Your task to perform on an android device: Show the shopping cart on ebay. Search for "logitech g pro" on ebay, select the first entry, add it to the cart, then select checkout. Image 0: 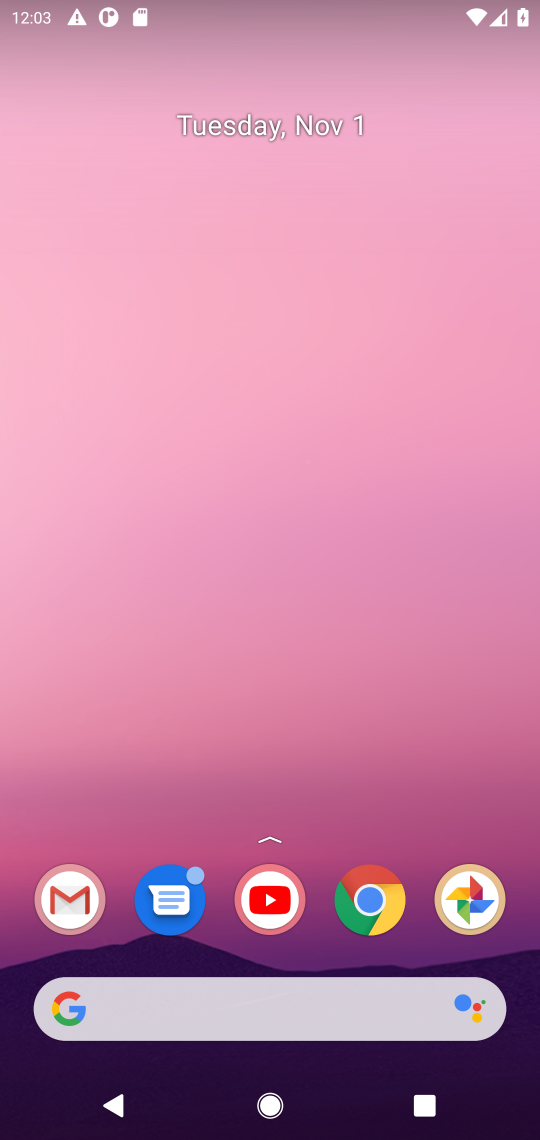
Step 0: click (363, 893)
Your task to perform on an android device: Show the shopping cart on ebay. Search for "logitech g pro" on ebay, select the first entry, add it to the cart, then select checkout. Image 1: 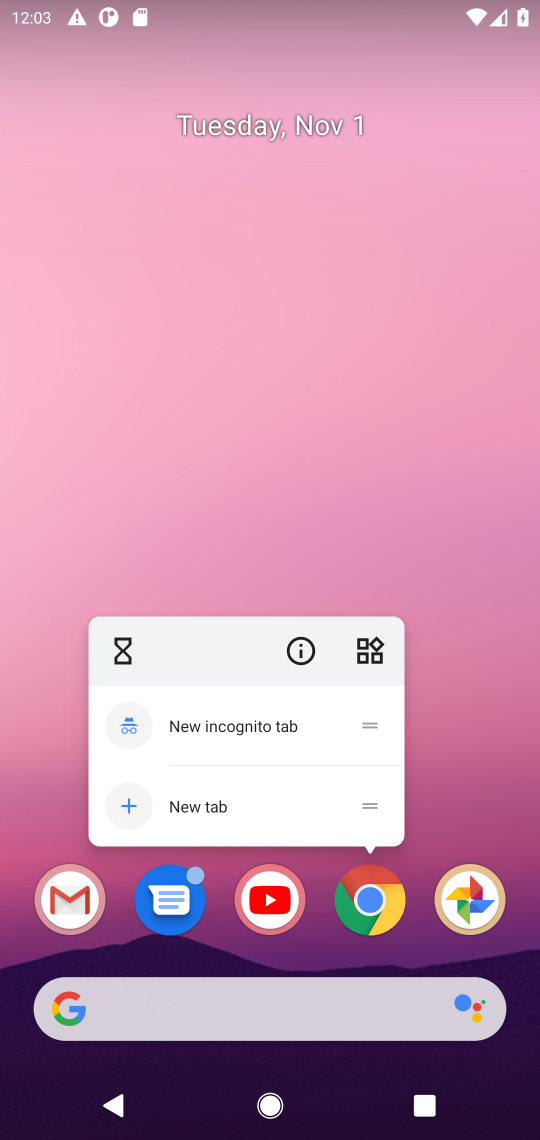
Step 1: click (363, 893)
Your task to perform on an android device: Show the shopping cart on ebay. Search for "logitech g pro" on ebay, select the first entry, add it to the cart, then select checkout. Image 2: 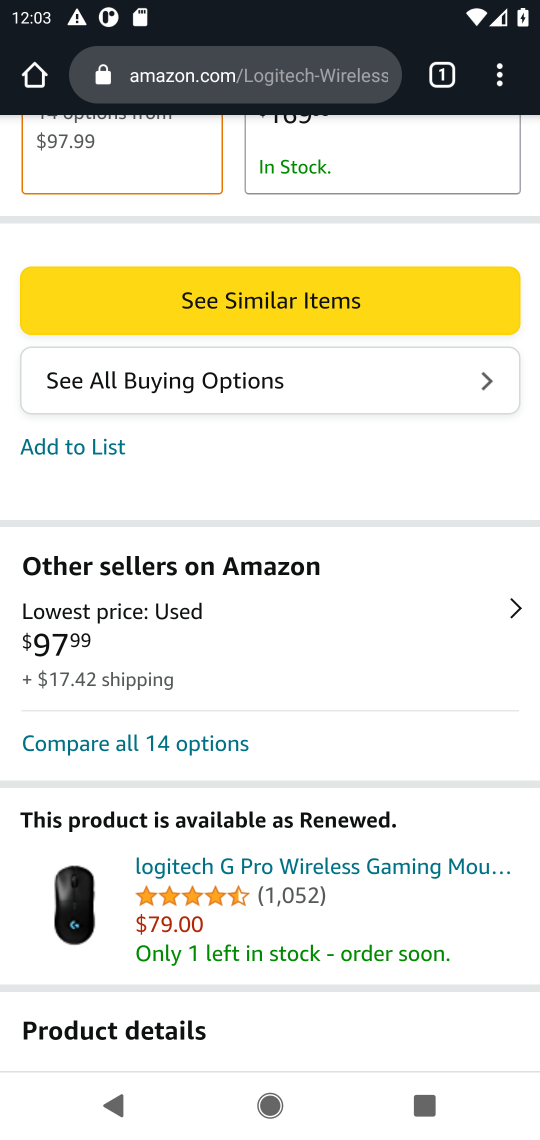
Step 2: click (179, 68)
Your task to perform on an android device: Show the shopping cart on ebay. Search for "logitech g pro" on ebay, select the first entry, add it to the cart, then select checkout. Image 3: 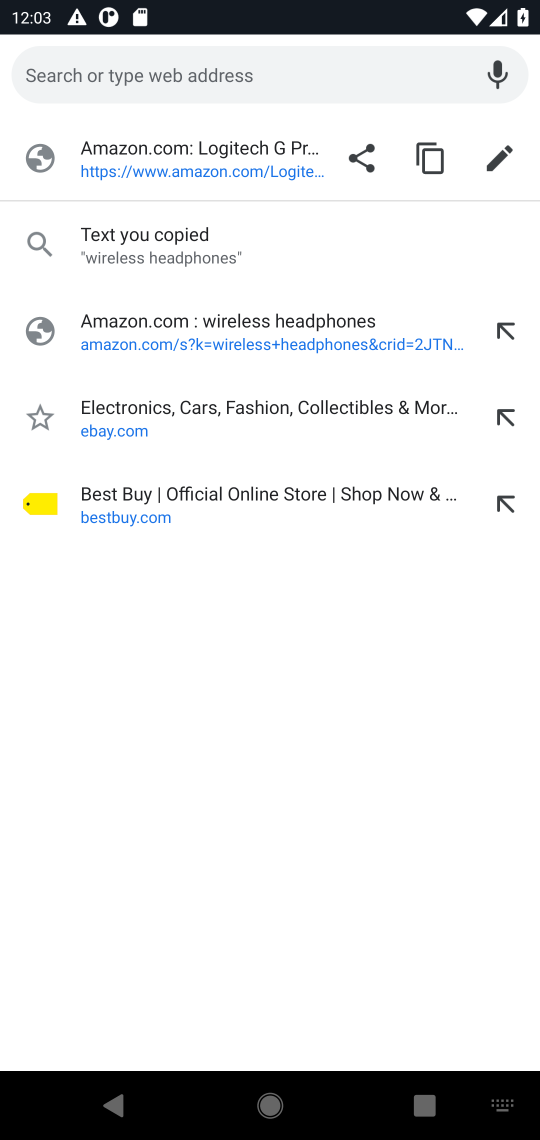
Step 3: click (193, 418)
Your task to perform on an android device: Show the shopping cart on ebay. Search for "logitech g pro" on ebay, select the first entry, add it to the cart, then select checkout. Image 4: 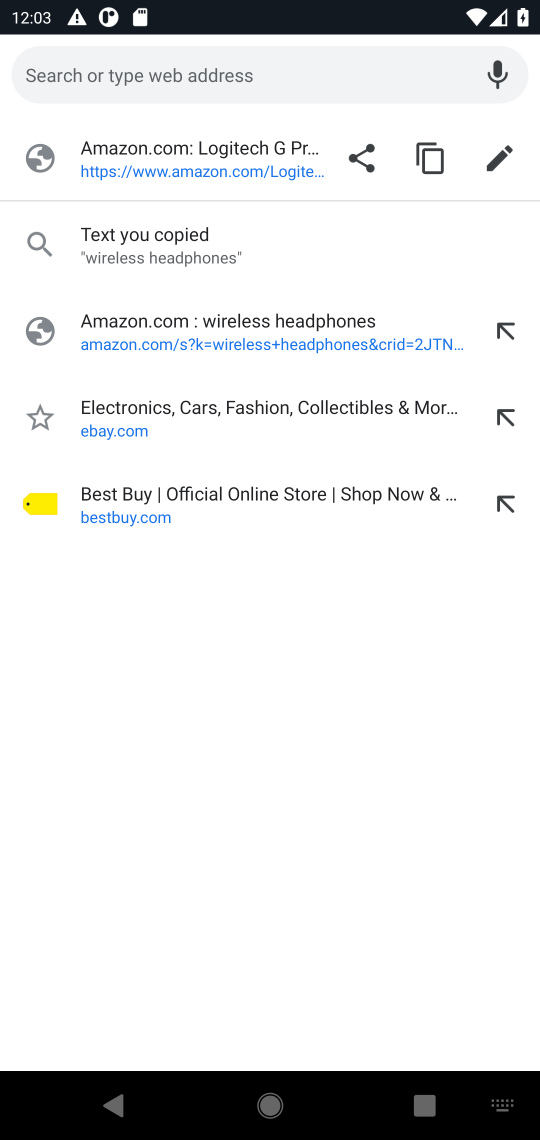
Step 4: click (193, 418)
Your task to perform on an android device: Show the shopping cart on ebay. Search for "logitech g pro" on ebay, select the first entry, add it to the cart, then select checkout. Image 5: 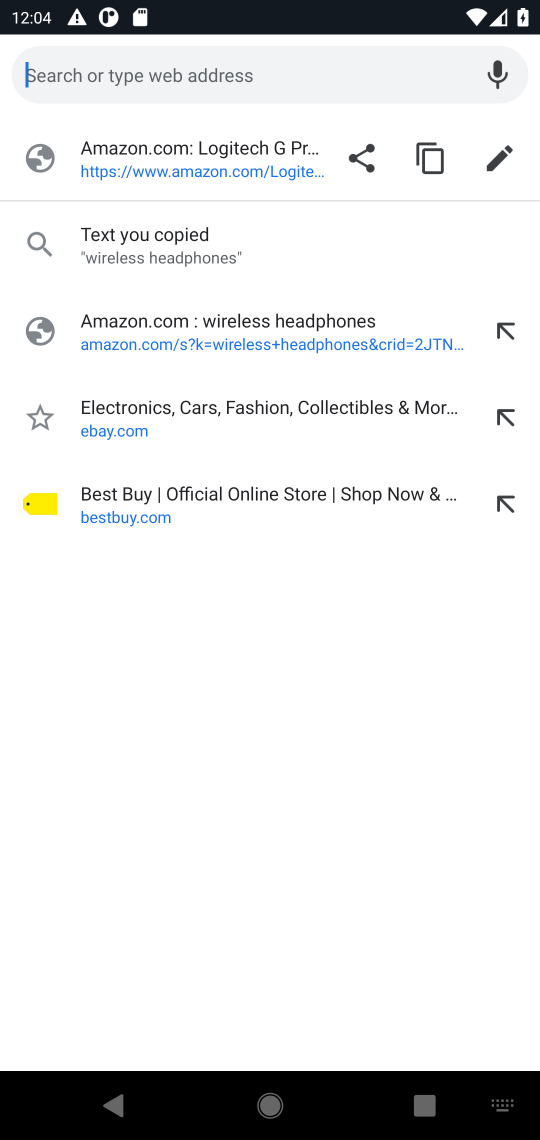
Step 5: type "ebay.com"
Your task to perform on an android device: Show the shopping cart on ebay. Search for "logitech g pro" on ebay, select the first entry, add it to the cart, then select checkout. Image 6: 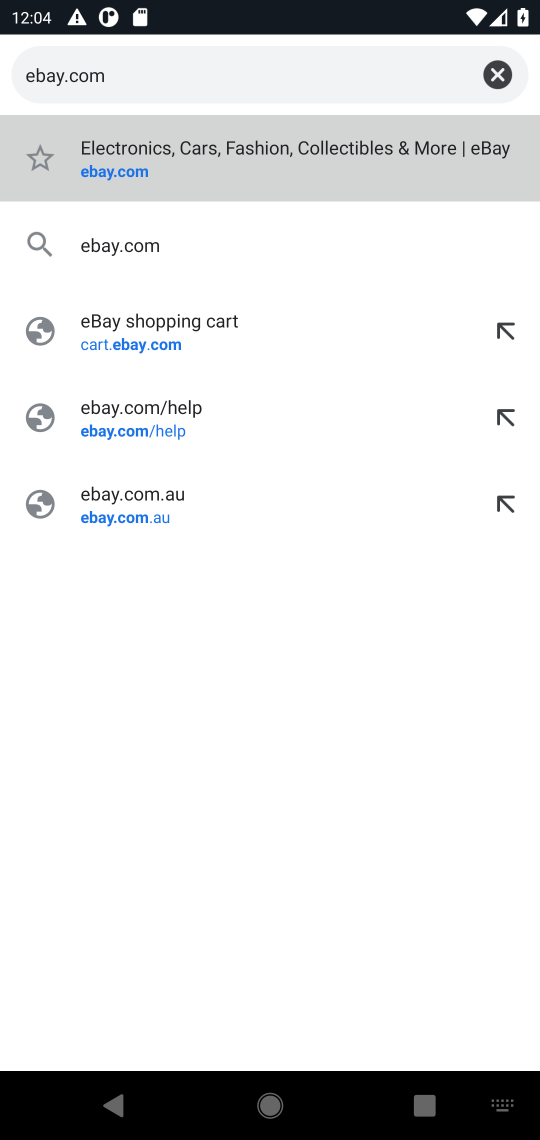
Step 6: press enter
Your task to perform on an android device: Show the shopping cart on ebay. Search for "logitech g pro" on ebay, select the first entry, add it to the cart, then select checkout. Image 7: 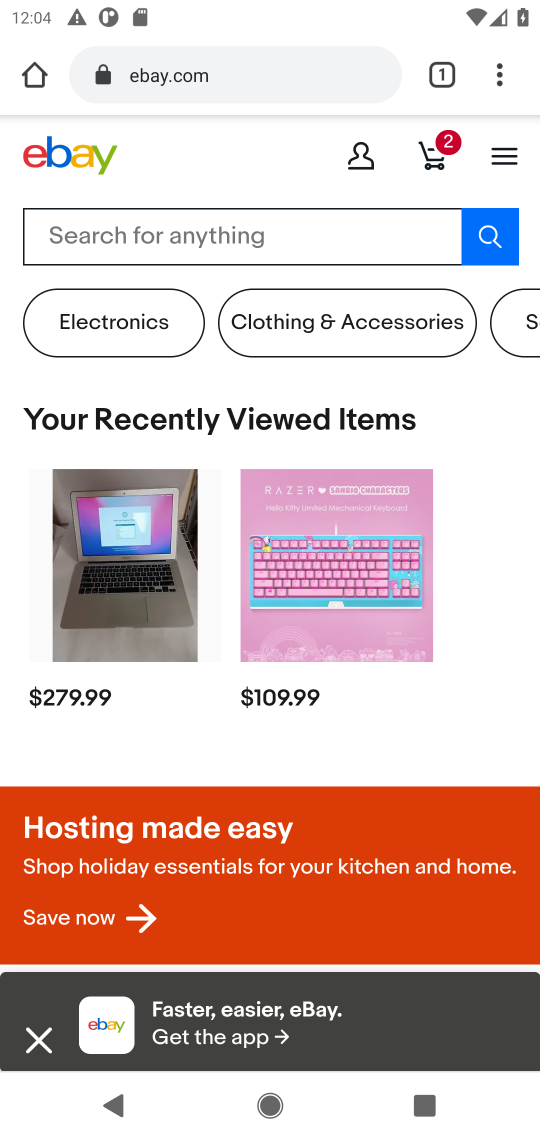
Step 7: click (434, 161)
Your task to perform on an android device: Show the shopping cart on ebay. Search for "logitech g pro" on ebay, select the first entry, add it to the cart, then select checkout. Image 8: 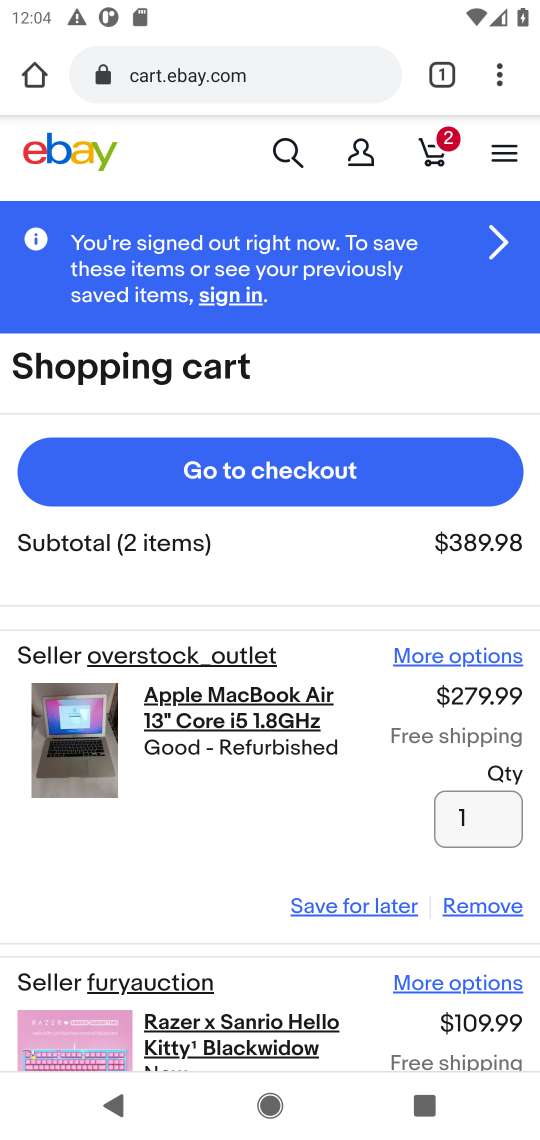
Step 8: drag from (314, 842) to (352, 570)
Your task to perform on an android device: Show the shopping cart on ebay. Search for "logitech g pro" on ebay, select the first entry, add it to the cart, then select checkout. Image 9: 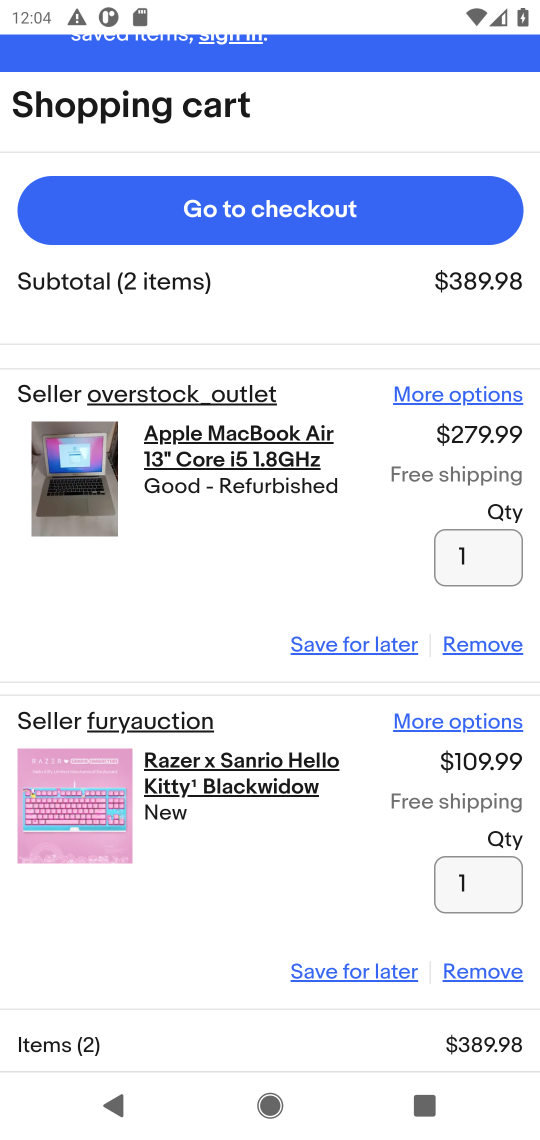
Step 9: drag from (316, 113) to (336, 415)
Your task to perform on an android device: Show the shopping cart on ebay. Search for "logitech g pro" on ebay, select the first entry, add it to the cart, then select checkout. Image 10: 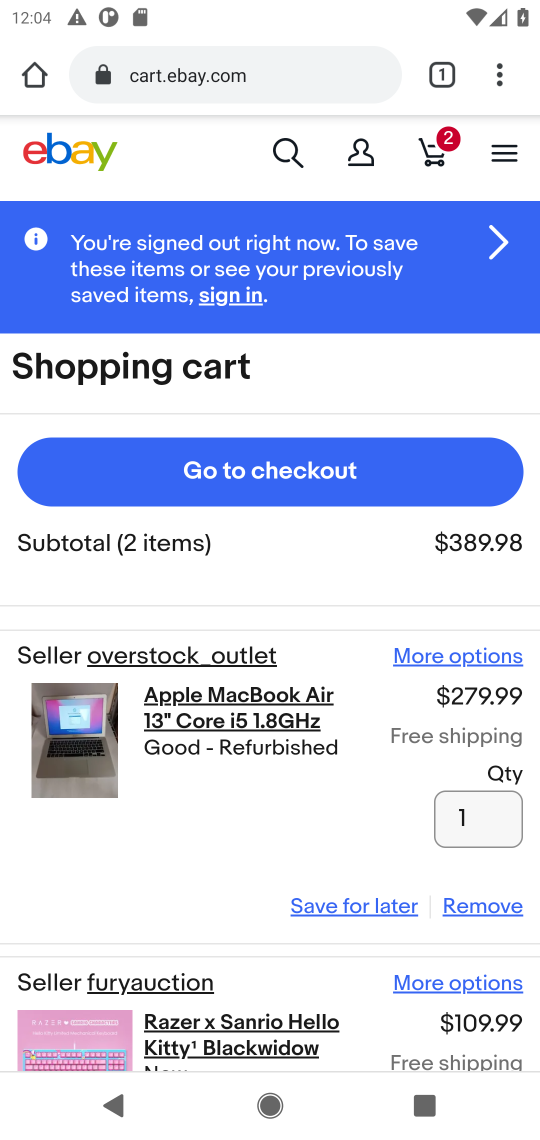
Step 10: click (278, 147)
Your task to perform on an android device: Show the shopping cart on ebay. Search for "logitech g pro" on ebay, select the first entry, add it to the cart, then select checkout. Image 11: 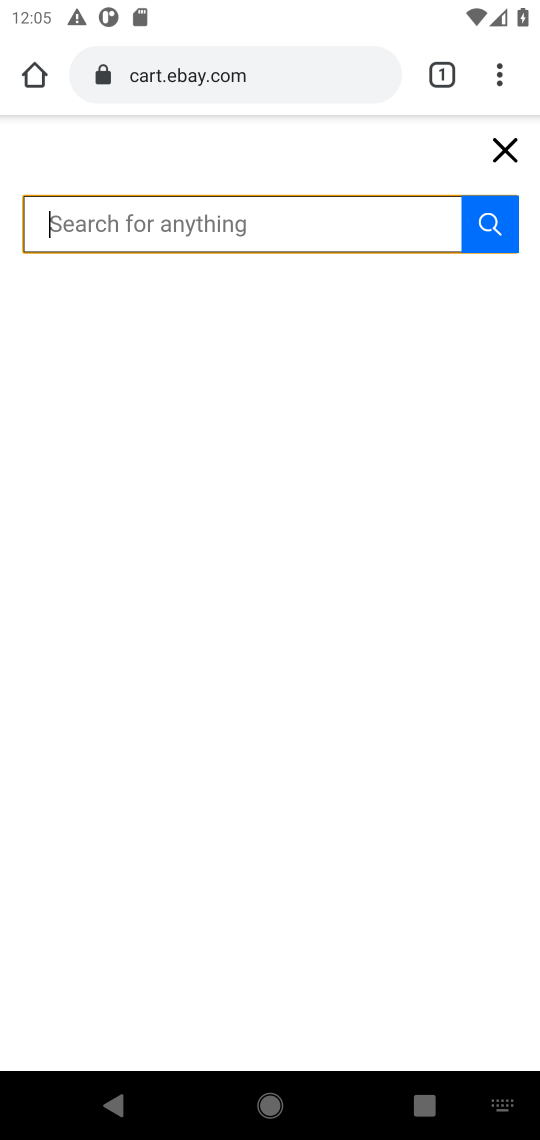
Step 11: type "logitech g pro"
Your task to perform on an android device: Show the shopping cart on ebay. Search for "logitech g pro" on ebay, select the first entry, add it to the cart, then select checkout. Image 12: 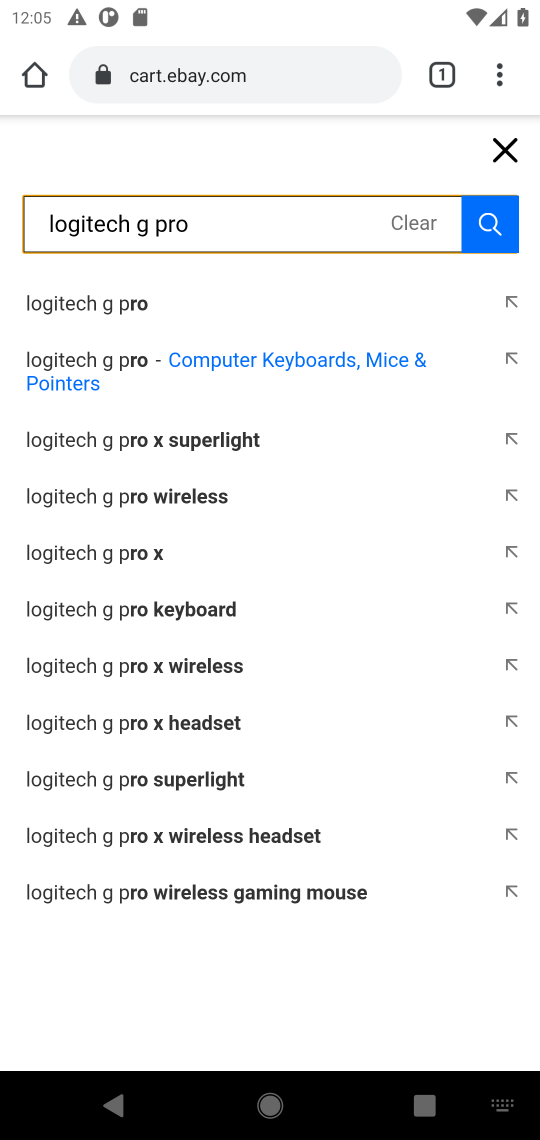
Step 12: click (505, 225)
Your task to perform on an android device: Show the shopping cart on ebay. Search for "logitech g pro" on ebay, select the first entry, add it to the cart, then select checkout. Image 13: 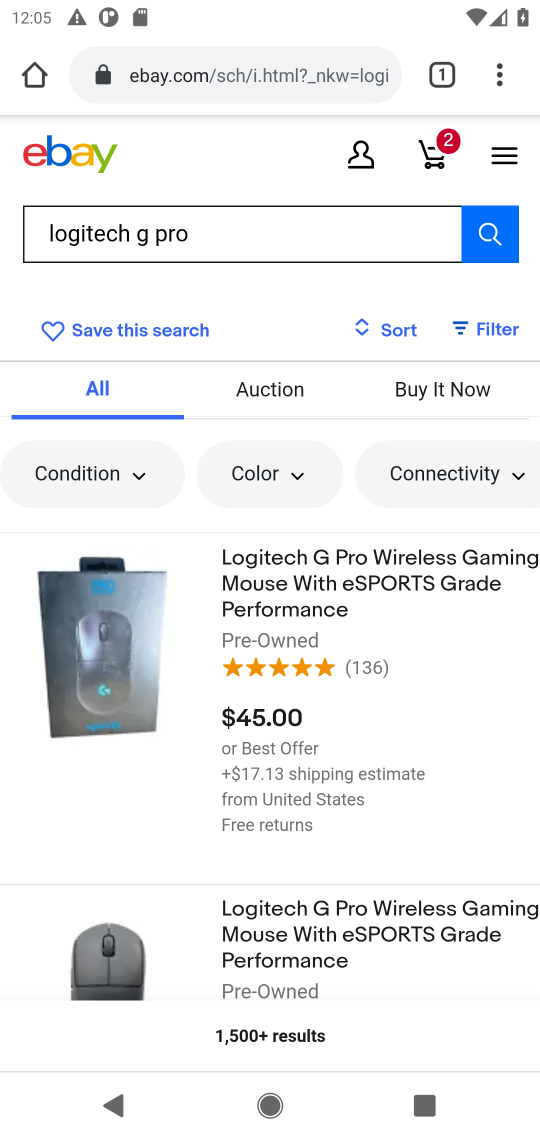
Step 13: drag from (389, 796) to (376, 660)
Your task to perform on an android device: Show the shopping cart on ebay. Search for "logitech g pro" on ebay, select the first entry, add it to the cart, then select checkout. Image 14: 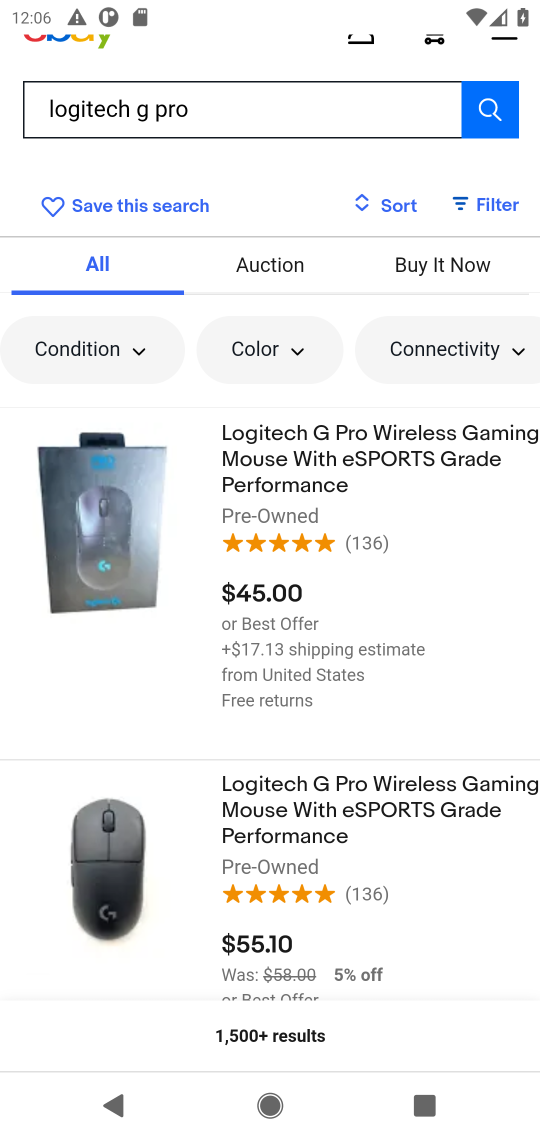
Step 14: click (272, 471)
Your task to perform on an android device: Show the shopping cart on ebay. Search for "logitech g pro" on ebay, select the first entry, add it to the cart, then select checkout. Image 15: 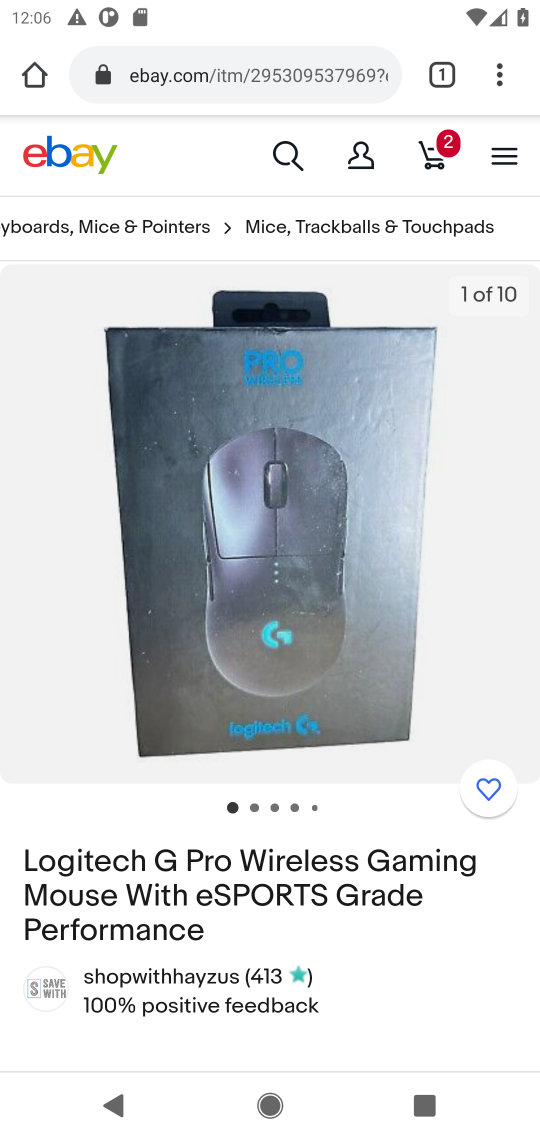
Step 15: drag from (336, 985) to (416, 416)
Your task to perform on an android device: Show the shopping cart on ebay. Search for "logitech g pro" on ebay, select the first entry, add it to the cart, then select checkout. Image 16: 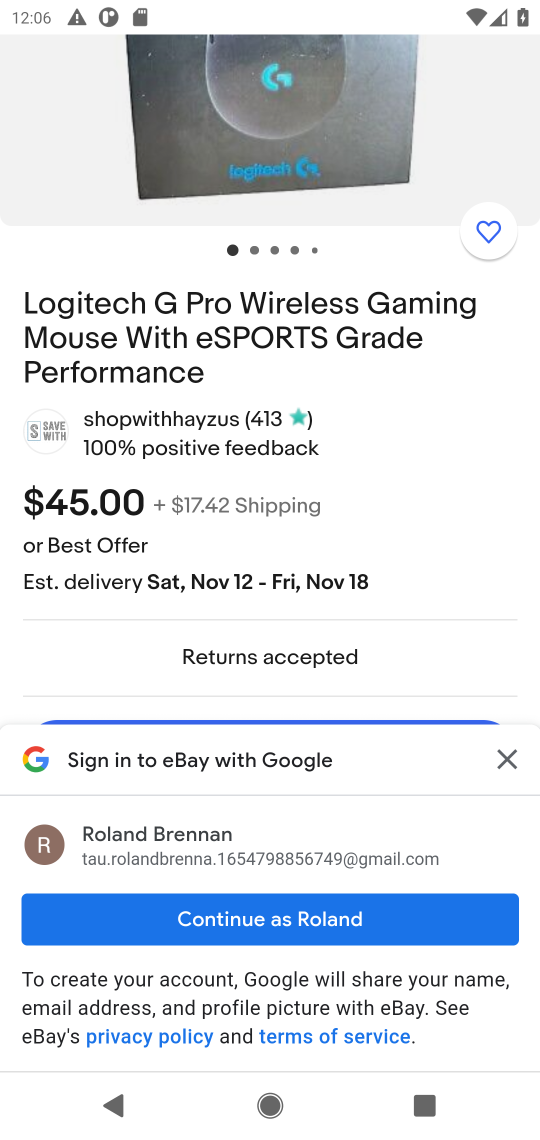
Step 16: drag from (385, 614) to (420, 336)
Your task to perform on an android device: Show the shopping cart on ebay. Search for "logitech g pro" on ebay, select the first entry, add it to the cart, then select checkout. Image 17: 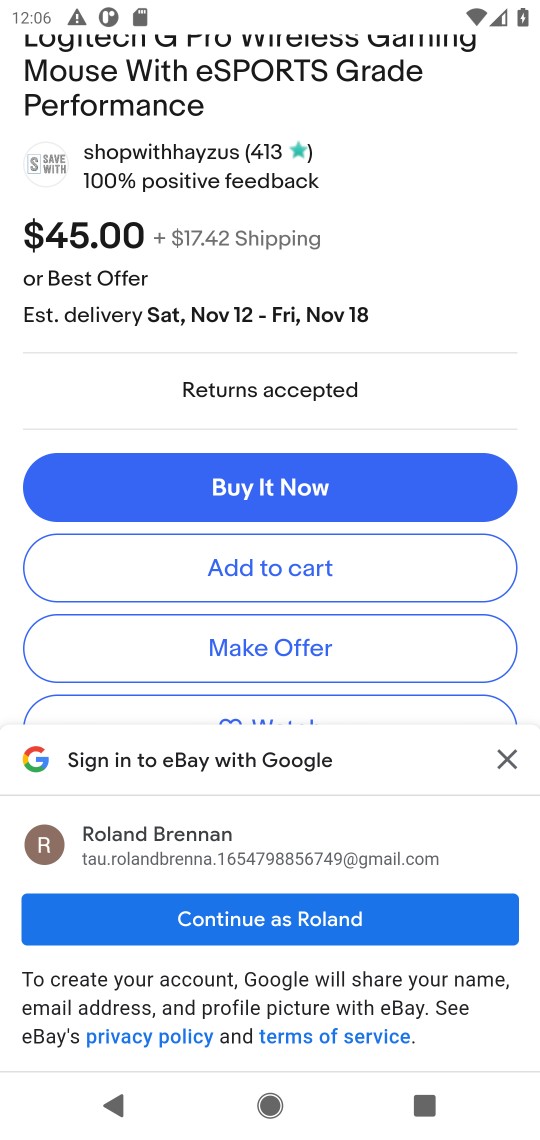
Step 17: click (276, 559)
Your task to perform on an android device: Show the shopping cart on ebay. Search for "logitech g pro" on ebay, select the first entry, add it to the cart, then select checkout. Image 18: 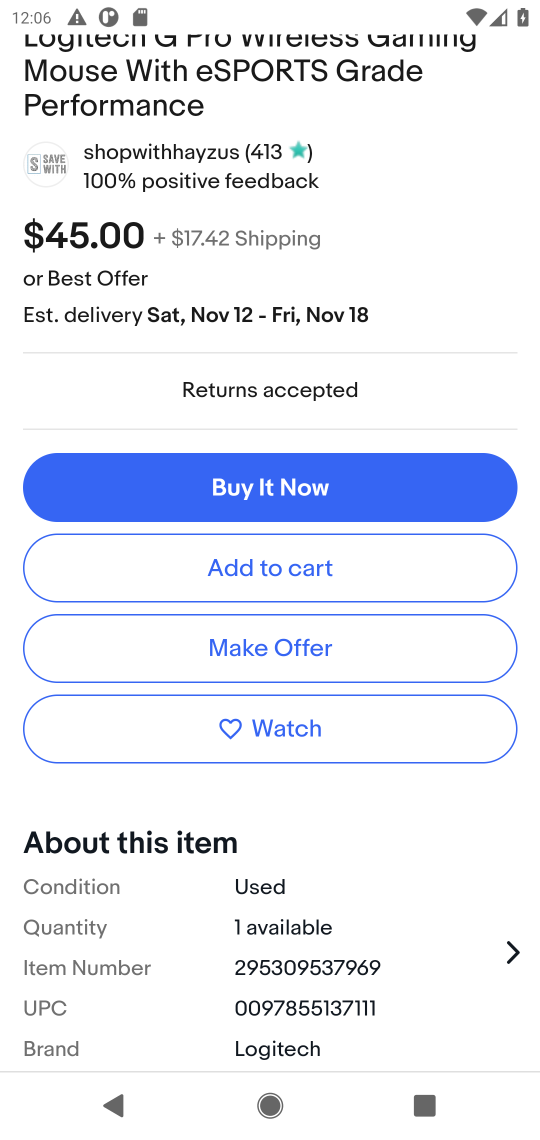
Step 18: click (275, 581)
Your task to perform on an android device: Show the shopping cart on ebay. Search for "logitech g pro" on ebay, select the first entry, add it to the cart, then select checkout. Image 19: 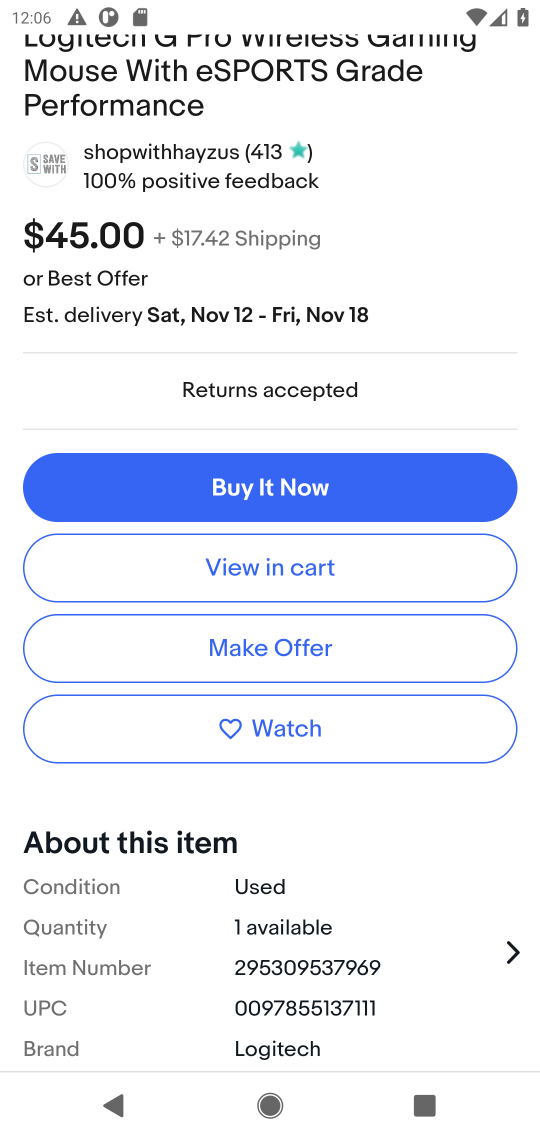
Step 19: click (275, 581)
Your task to perform on an android device: Show the shopping cart on ebay. Search for "logitech g pro" on ebay, select the first entry, add it to the cart, then select checkout. Image 20: 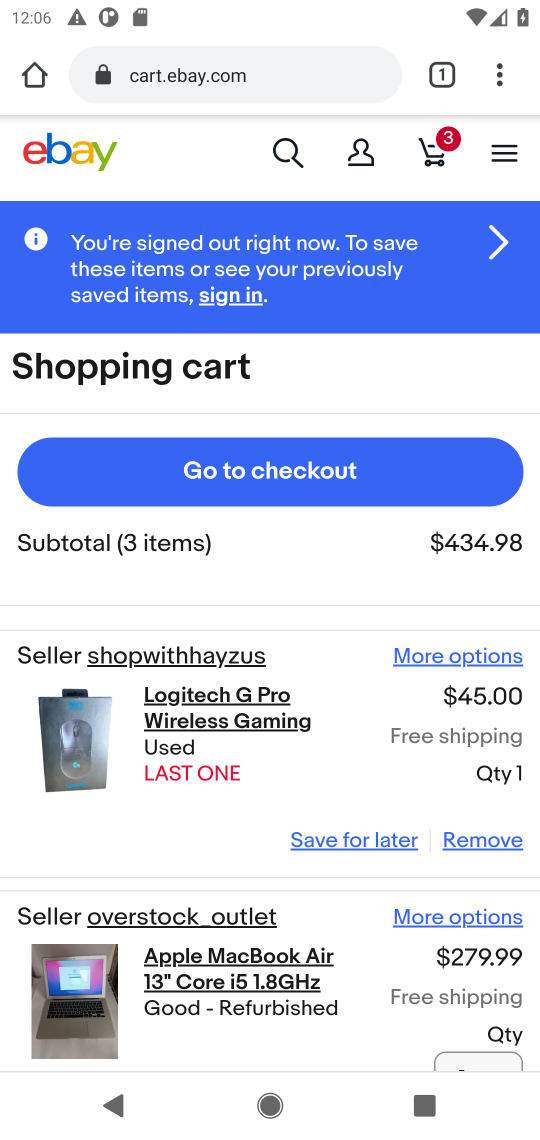
Step 20: click (353, 490)
Your task to perform on an android device: Show the shopping cart on ebay. Search for "logitech g pro" on ebay, select the first entry, add it to the cart, then select checkout. Image 21: 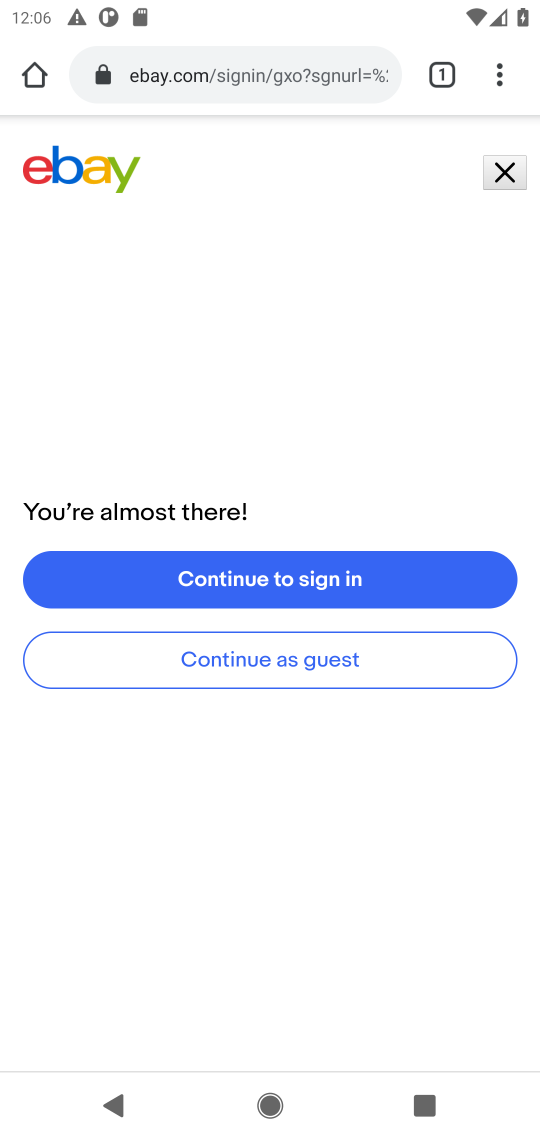
Step 21: click (331, 581)
Your task to perform on an android device: Show the shopping cart on ebay. Search for "logitech g pro" on ebay, select the first entry, add it to the cart, then select checkout. Image 22: 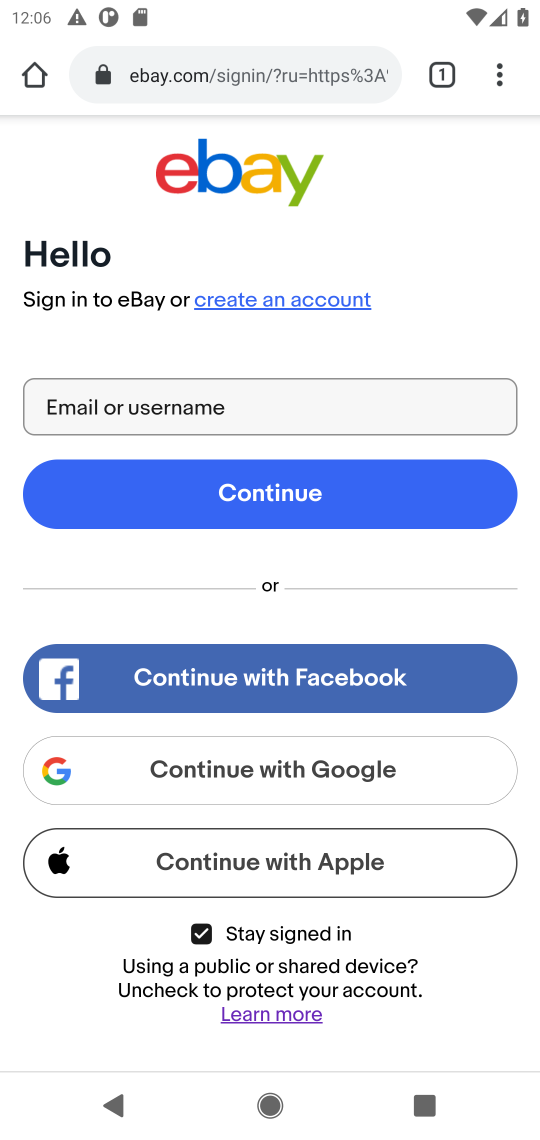
Step 22: task complete